Your task to perform on an android device: turn off location history Image 0: 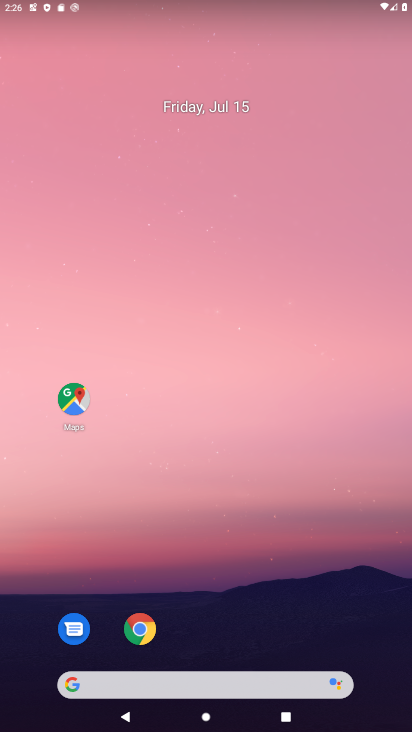
Step 0: drag from (213, 619) to (210, 106)
Your task to perform on an android device: turn off location history Image 1: 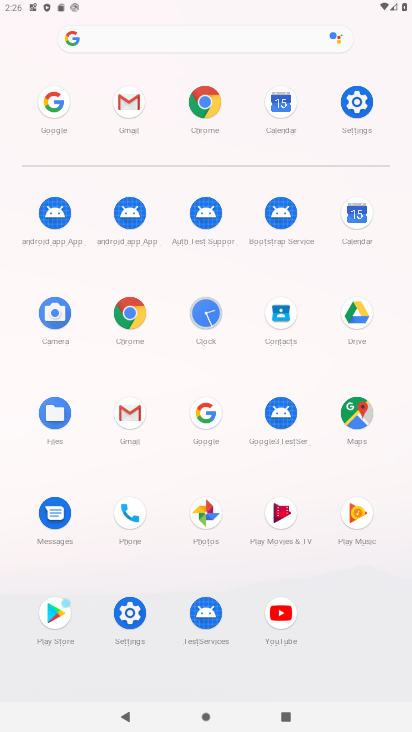
Step 1: click (131, 612)
Your task to perform on an android device: turn off location history Image 2: 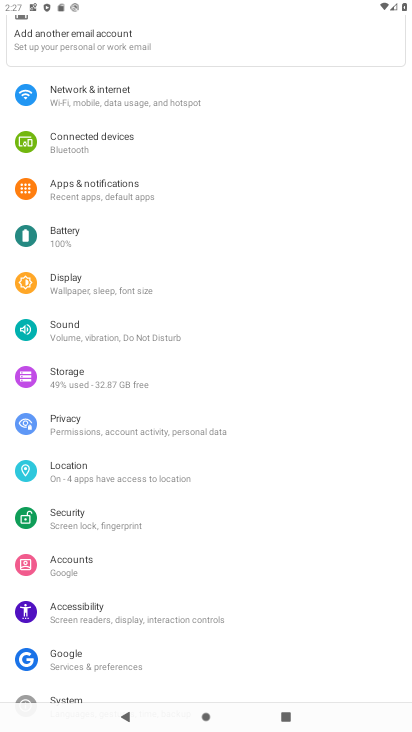
Step 2: click (126, 468)
Your task to perform on an android device: turn off location history Image 3: 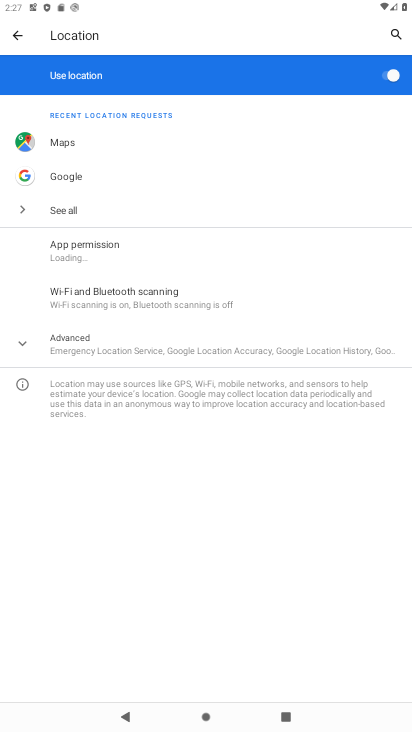
Step 3: click (98, 340)
Your task to perform on an android device: turn off location history Image 4: 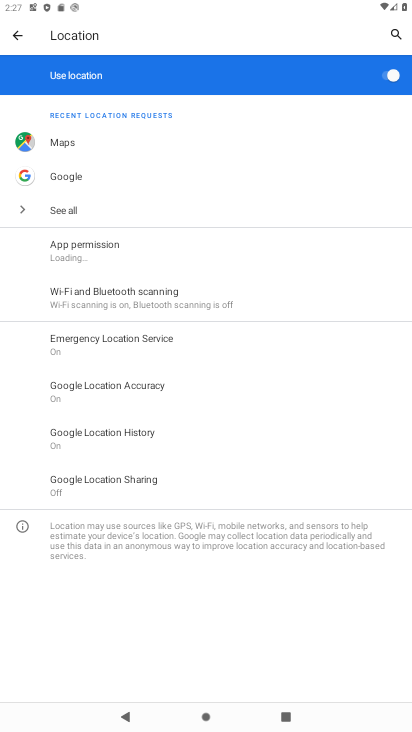
Step 4: click (148, 444)
Your task to perform on an android device: turn off location history Image 5: 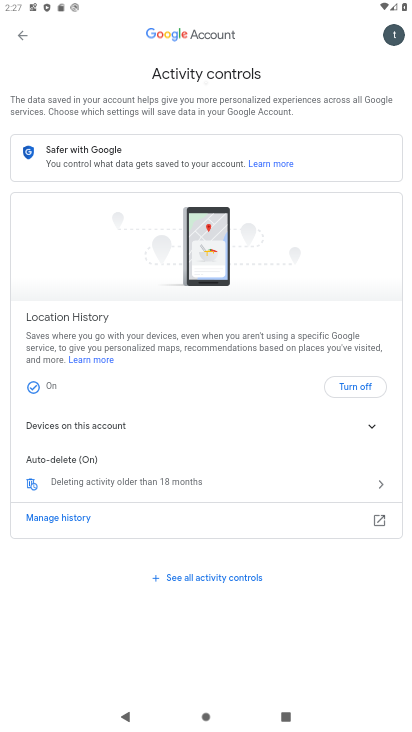
Step 5: click (358, 387)
Your task to perform on an android device: turn off location history Image 6: 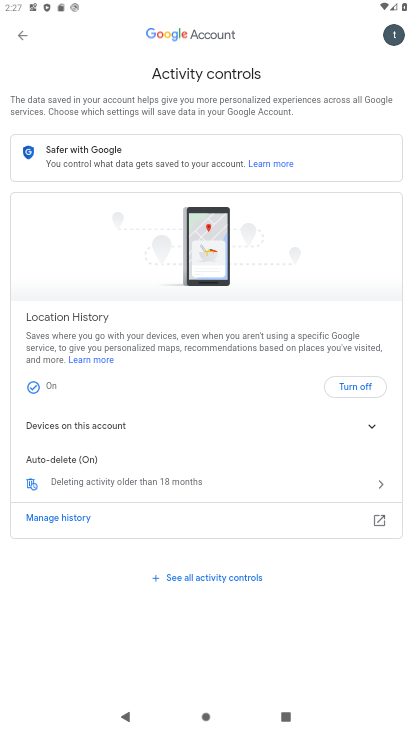
Step 6: click (352, 386)
Your task to perform on an android device: turn off location history Image 7: 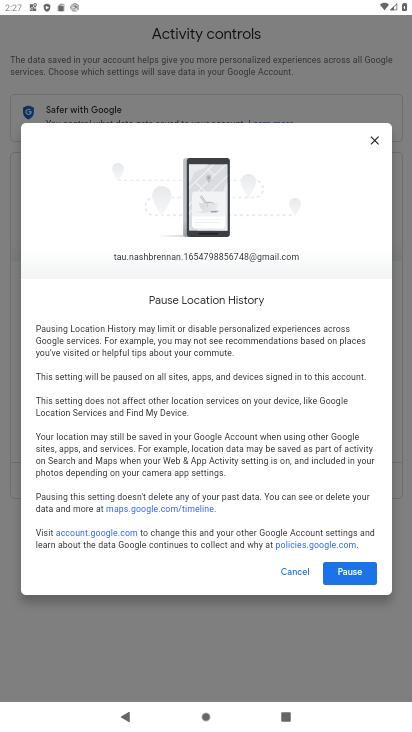
Step 7: click (346, 350)
Your task to perform on an android device: turn off location history Image 8: 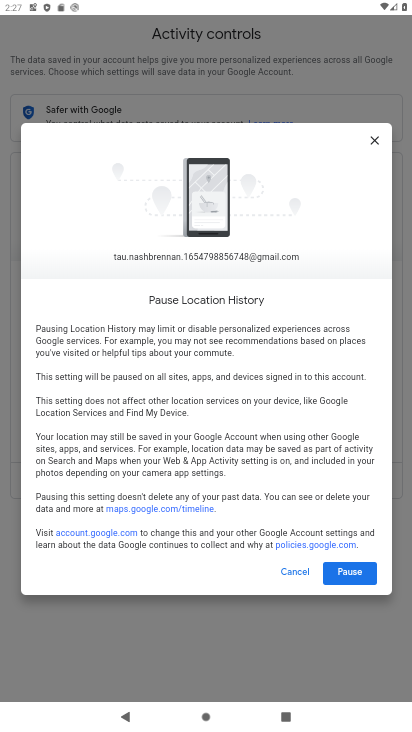
Step 8: click (349, 576)
Your task to perform on an android device: turn off location history Image 9: 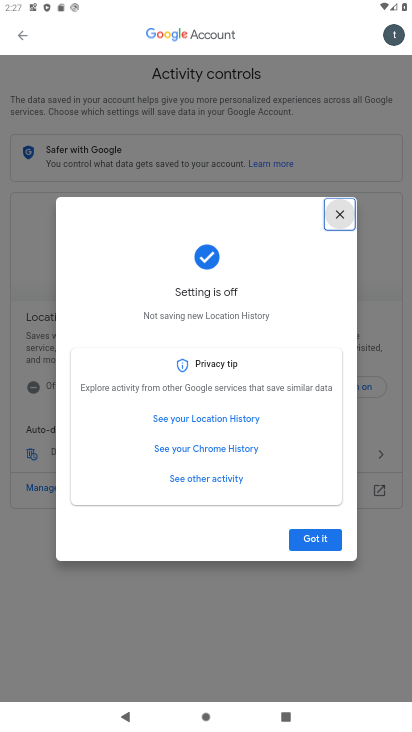
Step 9: click (296, 545)
Your task to perform on an android device: turn off location history Image 10: 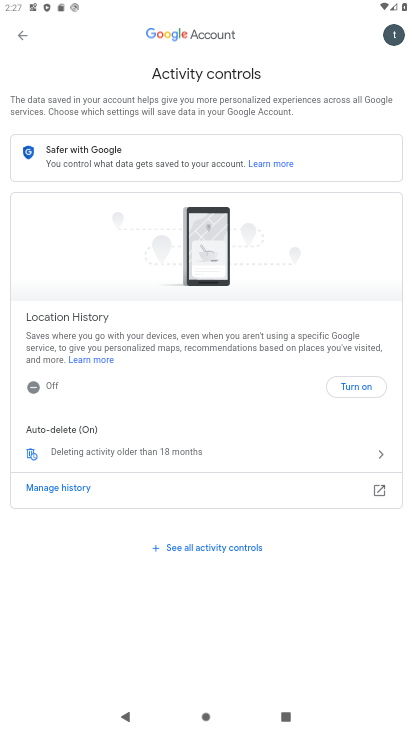
Step 10: task complete